Your task to perform on an android device: Turn off the flashlight Image 0: 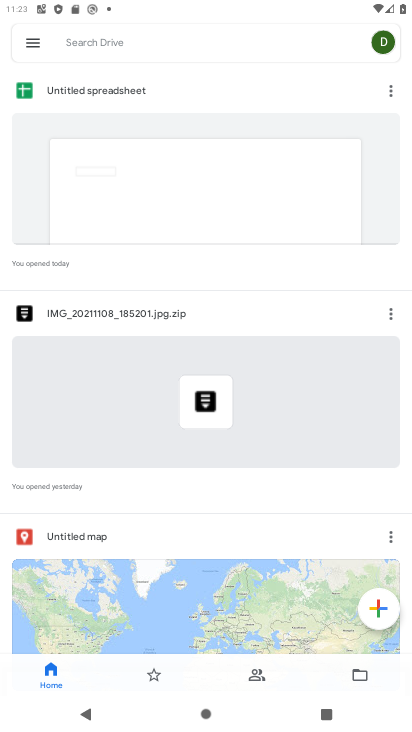
Step 0: press home button
Your task to perform on an android device: Turn off the flashlight Image 1: 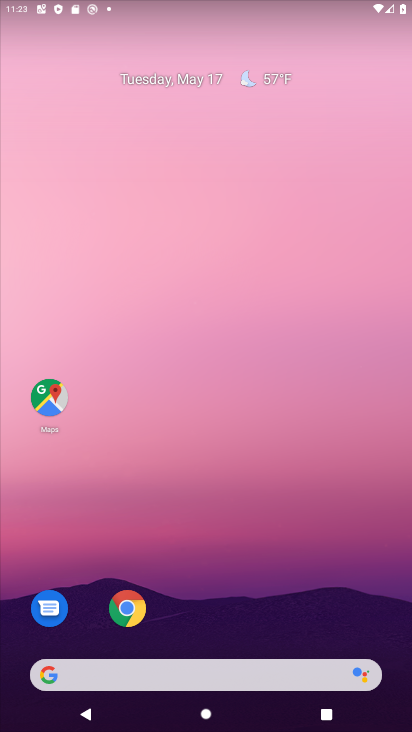
Step 1: drag from (315, 511) to (233, 206)
Your task to perform on an android device: Turn off the flashlight Image 2: 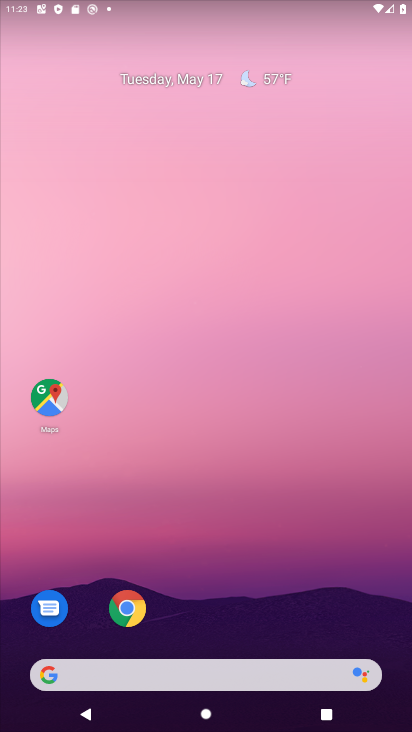
Step 2: drag from (199, 459) to (161, 175)
Your task to perform on an android device: Turn off the flashlight Image 3: 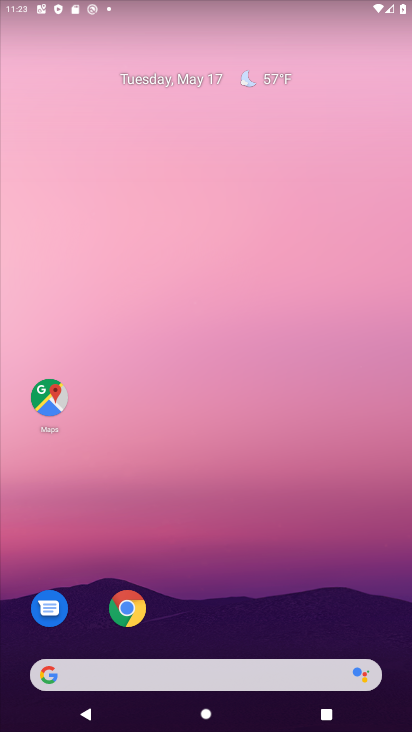
Step 3: drag from (189, 506) to (136, 71)
Your task to perform on an android device: Turn off the flashlight Image 4: 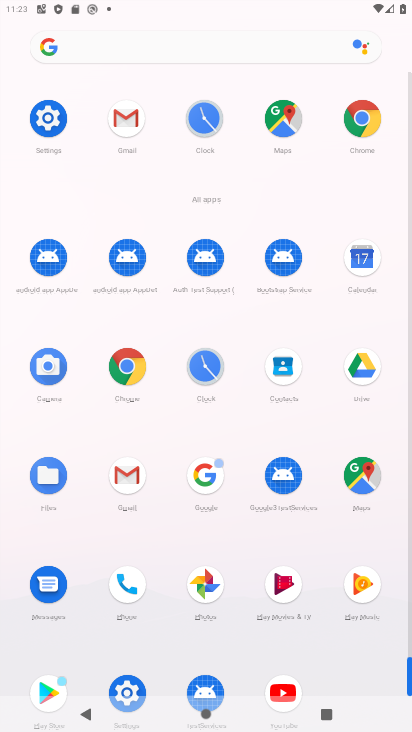
Step 4: click (42, 112)
Your task to perform on an android device: Turn off the flashlight Image 5: 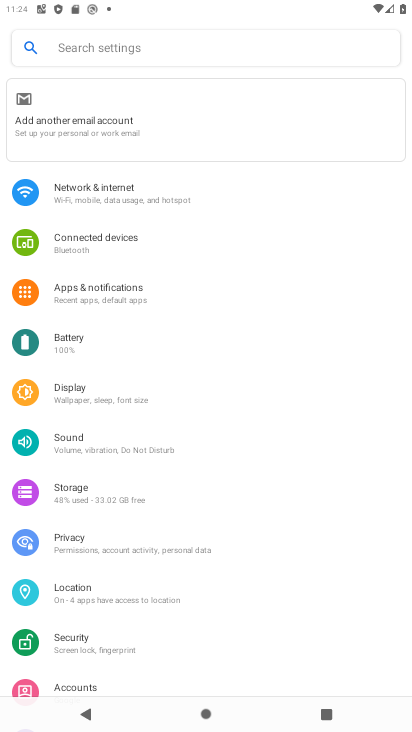
Step 5: click (108, 287)
Your task to perform on an android device: Turn off the flashlight Image 6: 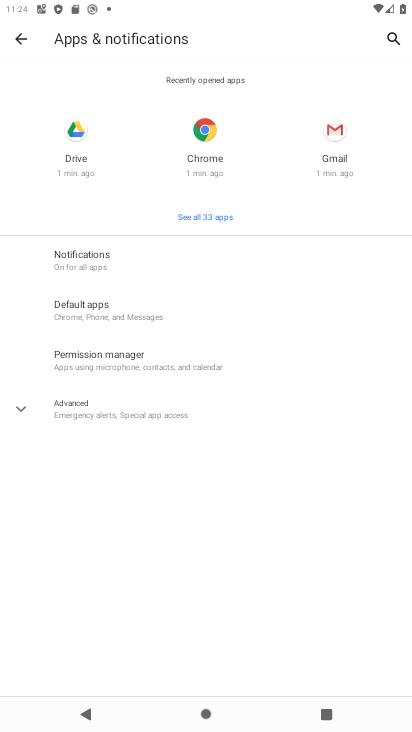
Step 6: task complete